Your task to perform on an android device: turn on bluetooth scan Image 0: 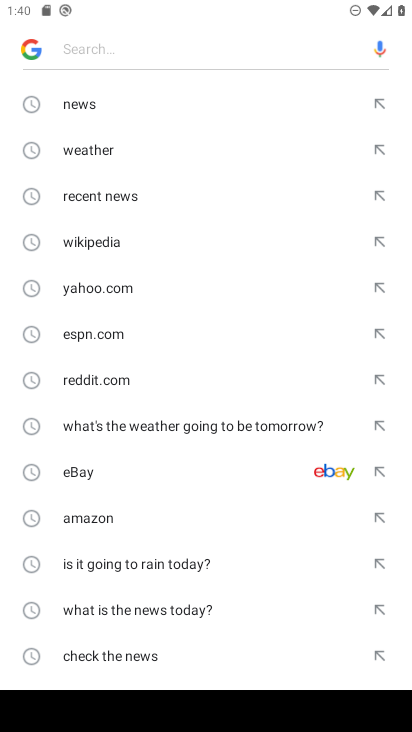
Step 0: press home button
Your task to perform on an android device: turn on bluetooth scan Image 1: 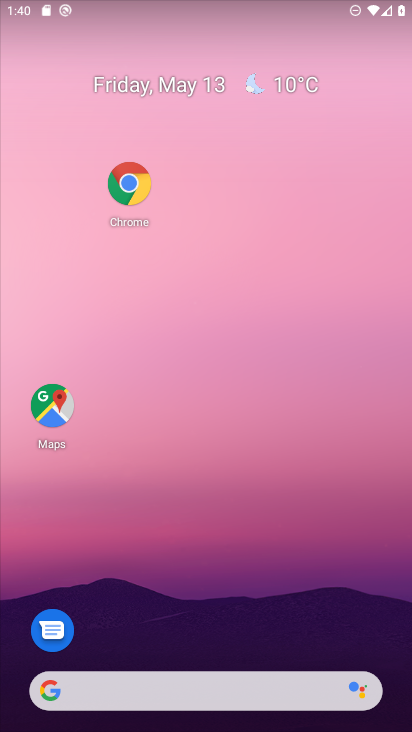
Step 1: drag from (156, 681) to (281, 77)
Your task to perform on an android device: turn on bluetooth scan Image 2: 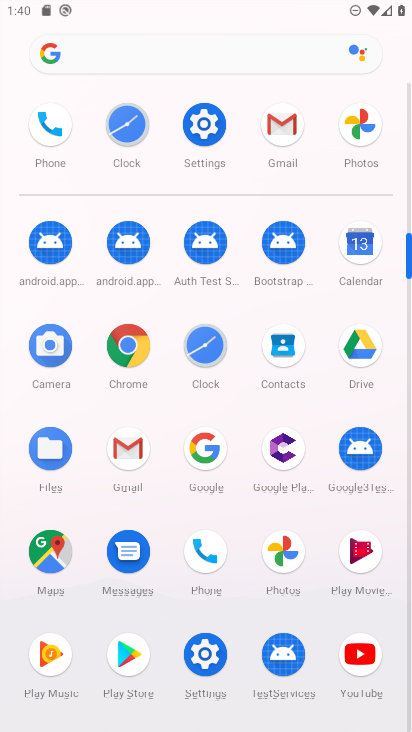
Step 2: click (204, 664)
Your task to perform on an android device: turn on bluetooth scan Image 3: 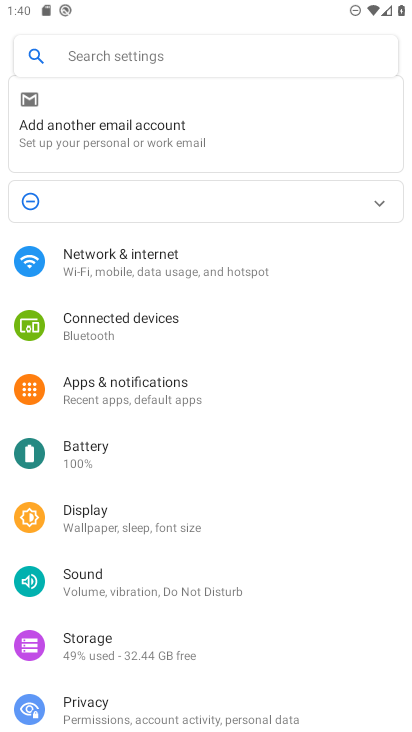
Step 3: drag from (117, 654) to (144, 263)
Your task to perform on an android device: turn on bluetooth scan Image 4: 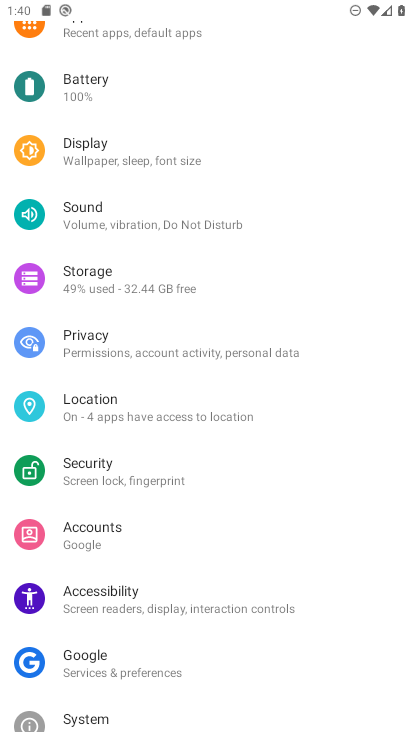
Step 4: click (88, 419)
Your task to perform on an android device: turn on bluetooth scan Image 5: 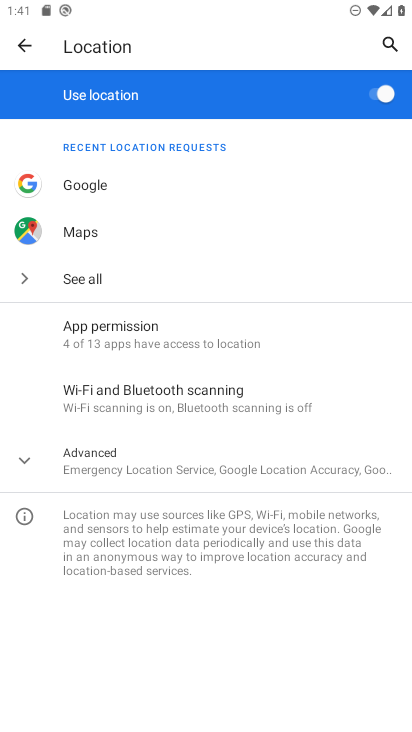
Step 5: click (104, 411)
Your task to perform on an android device: turn on bluetooth scan Image 6: 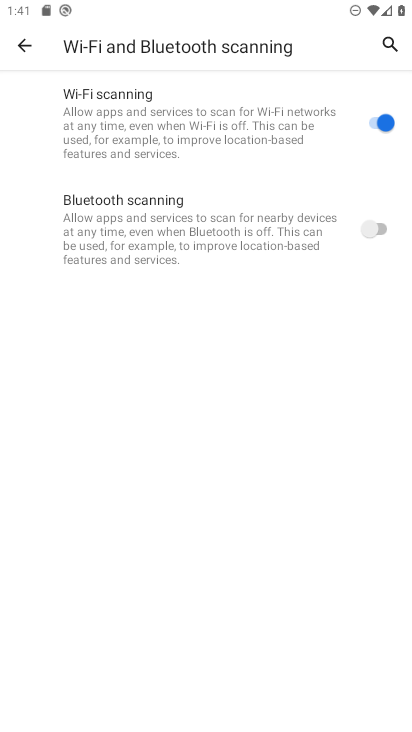
Step 6: click (374, 224)
Your task to perform on an android device: turn on bluetooth scan Image 7: 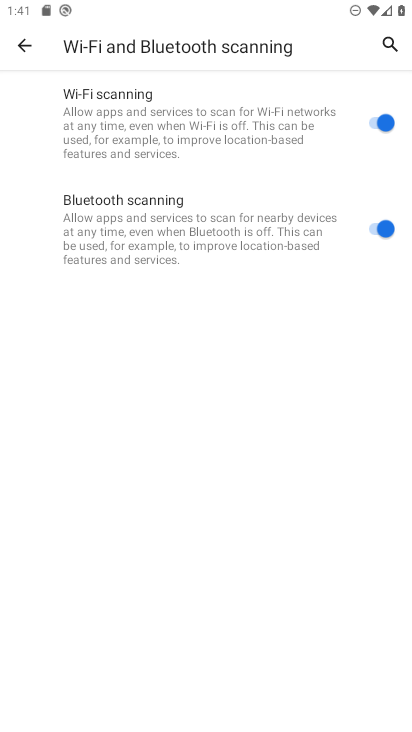
Step 7: task complete